Your task to perform on an android device: What's on the menu at Denny's? Image 0: 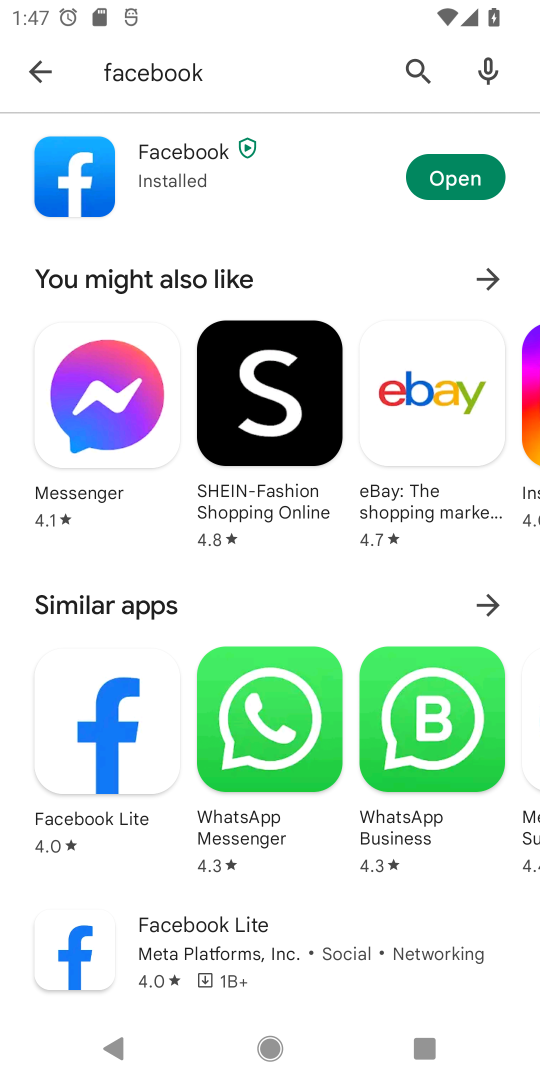
Step 0: press home button
Your task to perform on an android device: What's on the menu at Denny's? Image 1: 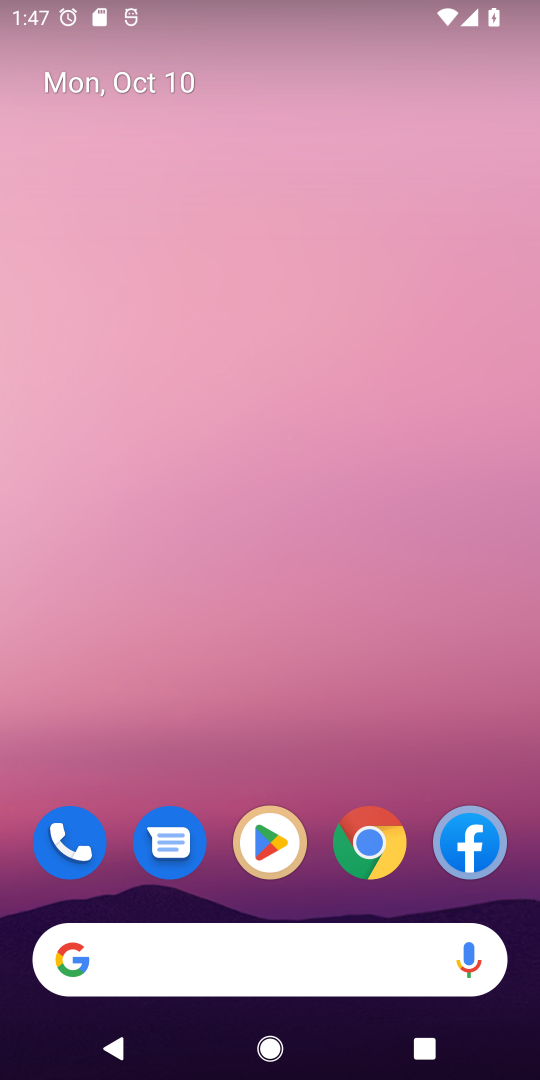
Step 1: click (355, 837)
Your task to perform on an android device: What's on the menu at Denny's? Image 2: 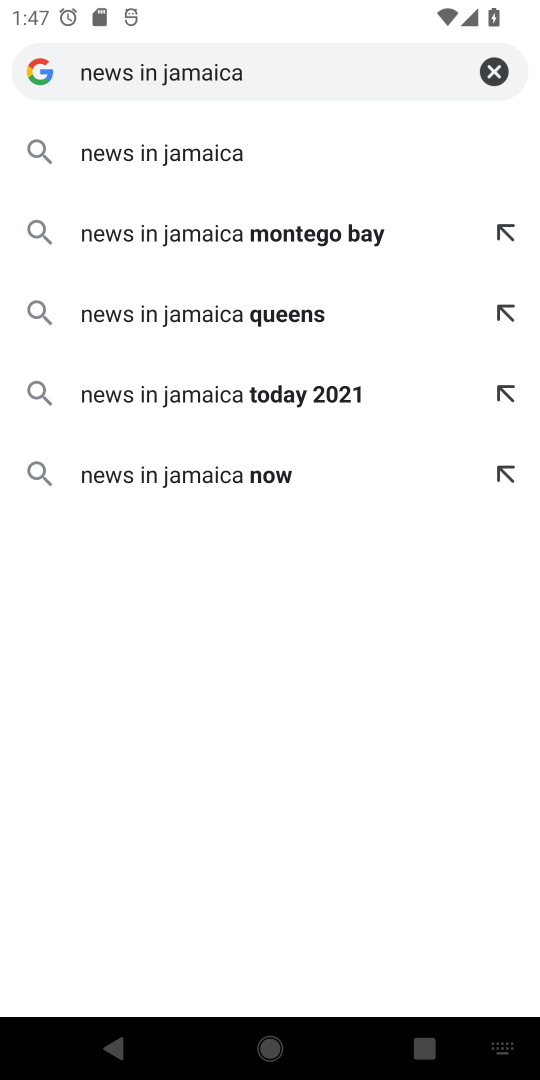
Step 2: click (497, 61)
Your task to perform on an android device: What's on the menu at Denny's? Image 3: 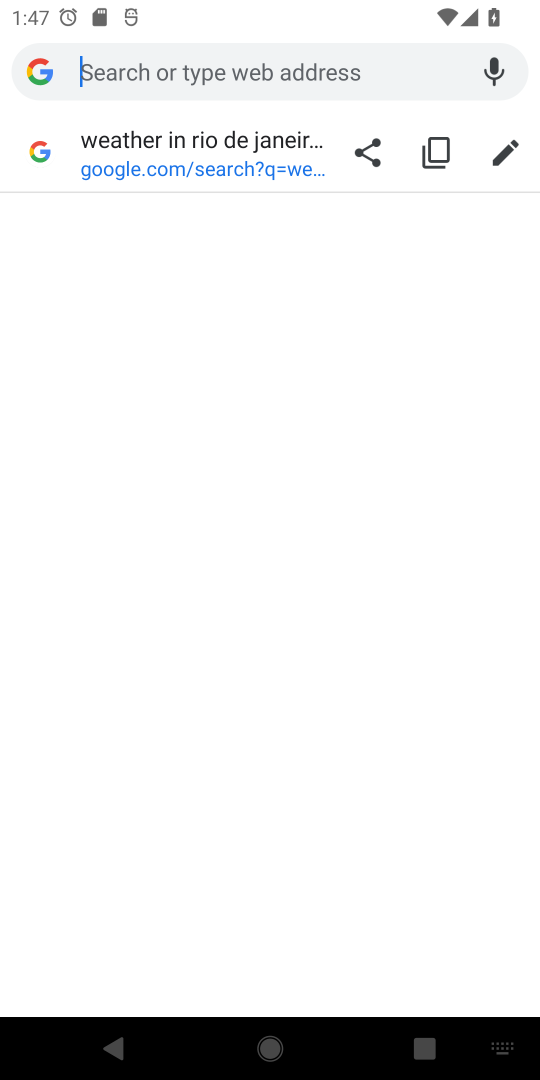
Step 3: type "menu at denny's"
Your task to perform on an android device: What's on the menu at Denny's? Image 4: 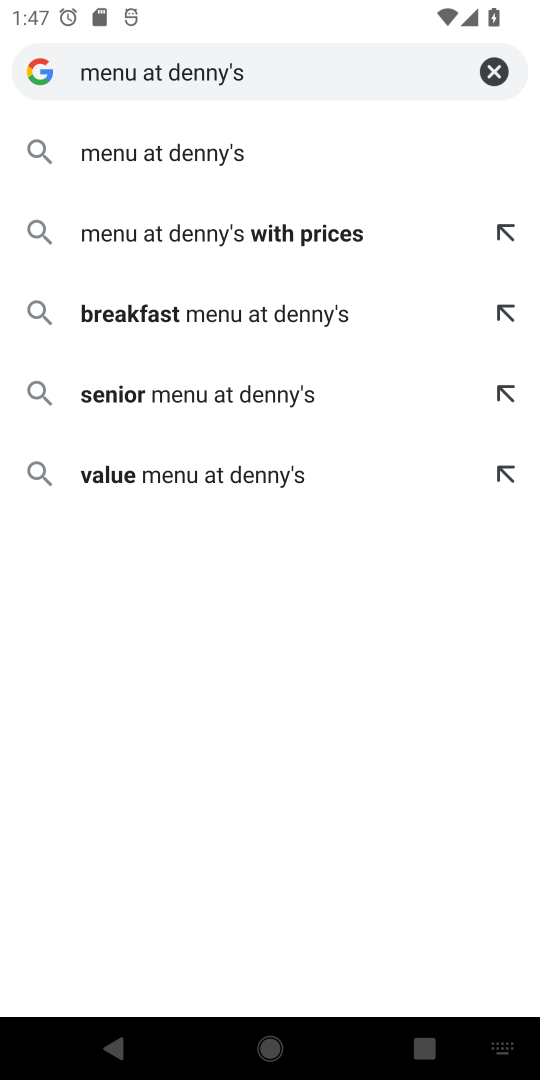
Step 4: press enter
Your task to perform on an android device: What's on the menu at Denny's? Image 5: 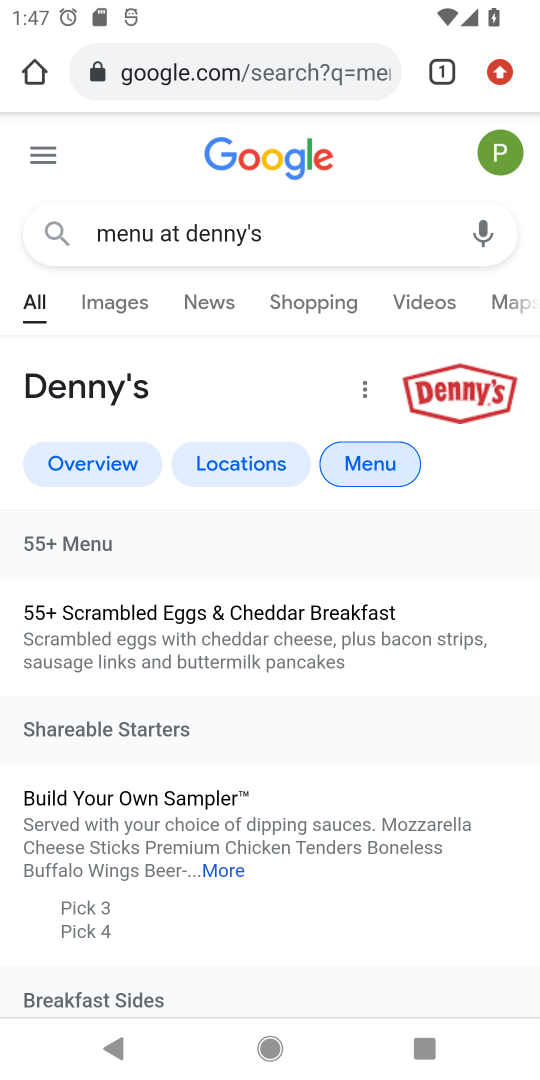
Step 5: drag from (334, 735) to (301, 357)
Your task to perform on an android device: What's on the menu at Denny's? Image 6: 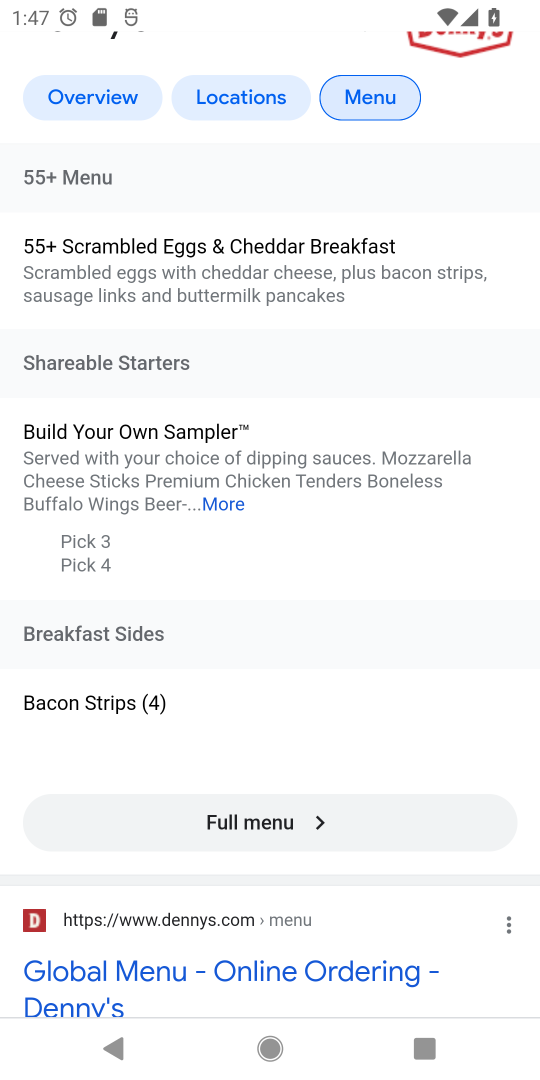
Step 6: drag from (375, 709) to (347, 511)
Your task to perform on an android device: What's on the menu at Denny's? Image 7: 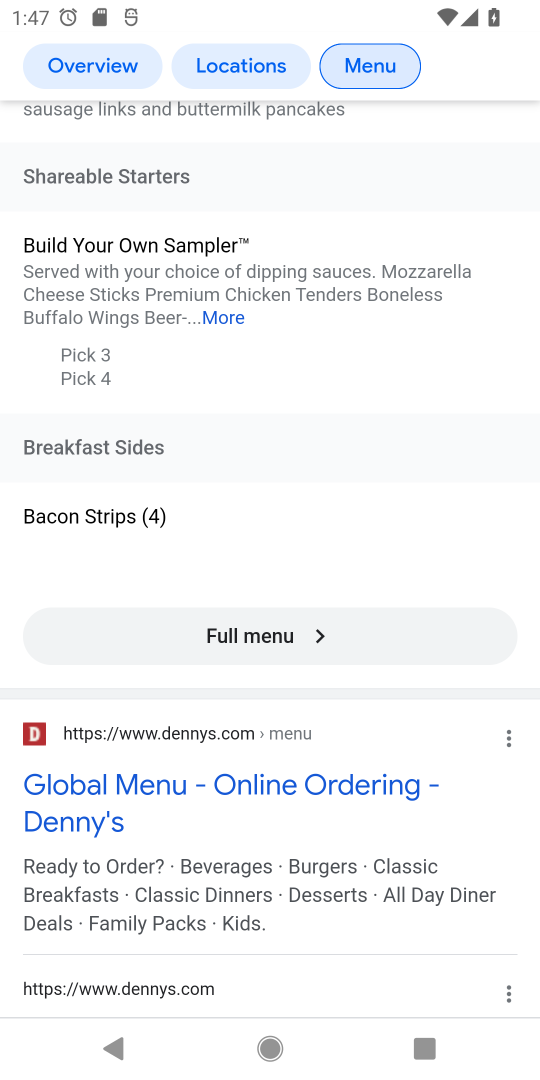
Step 7: click (252, 630)
Your task to perform on an android device: What's on the menu at Denny's? Image 8: 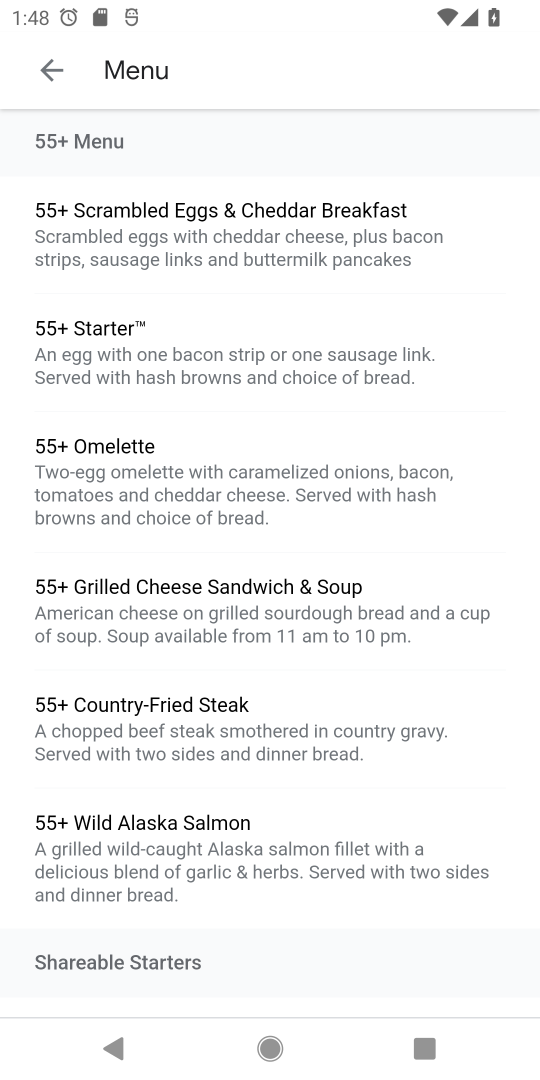
Step 8: task complete